Your task to perform on an android device: Search for Mexican restaurants on Maps Image 0: 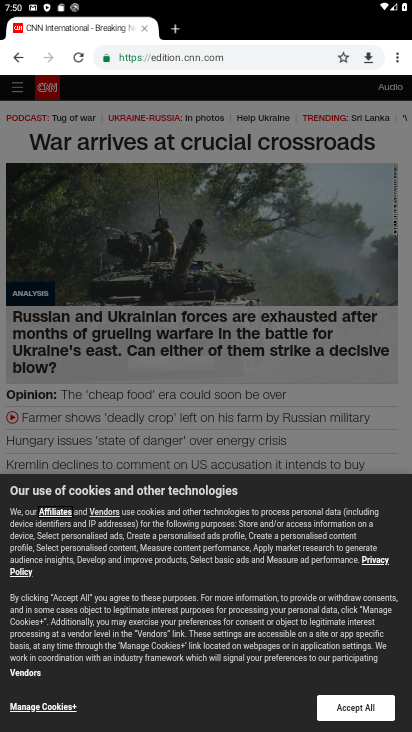
Step 0: press home button
Your task to perform on an android device: Search for Mexican restaurants on Maps Image 1: 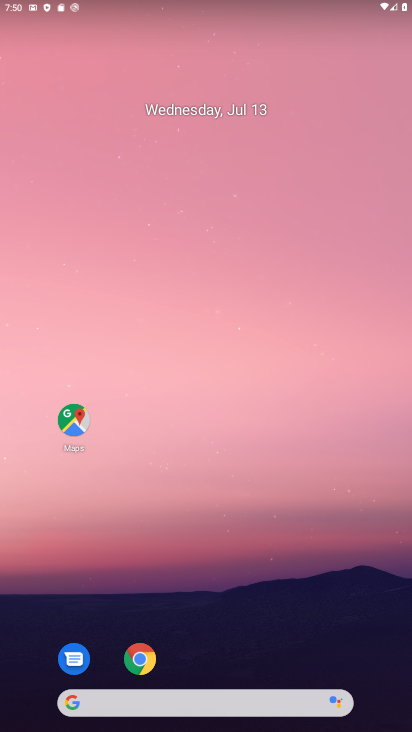
Step 1: click (60, 409)
Your task to perform on an android device: Search for Mexican restaurants on Maps Image 2: 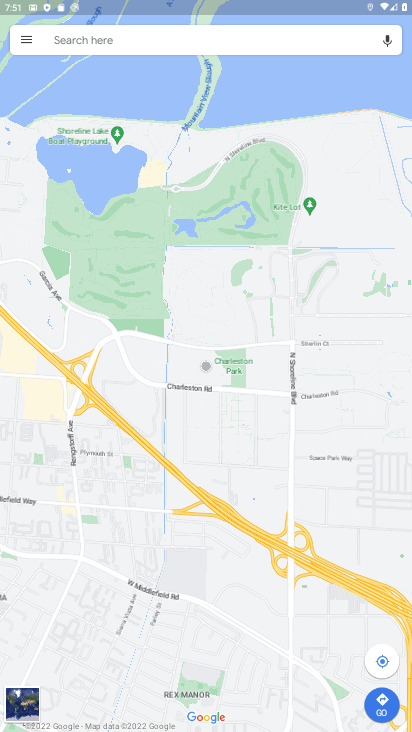
Step 2: click (270, 45)
Your task to perform on an android device: Search for Mexican restaurants on Maps Image 3: 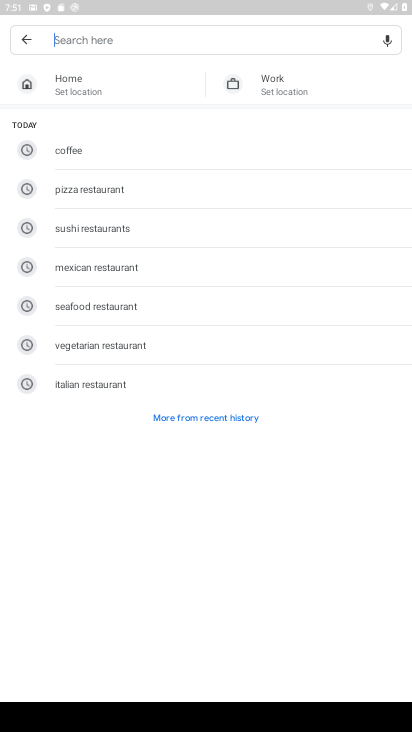
Step 3: click (159, 264)
Your task to perform on an android device: Search for Mexican restaurants on Maps Image 4: 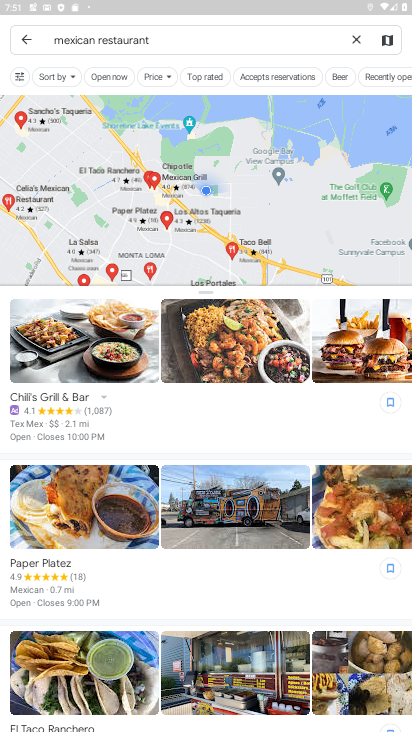
Step 4: task complete